Your task to perform on an android device: Toggle the flashlight Image 0: 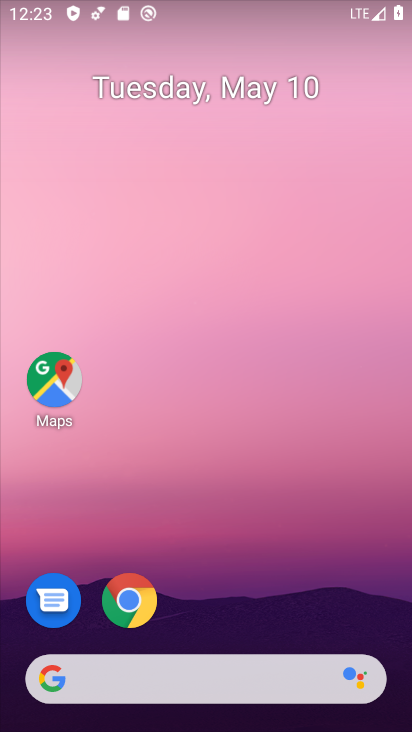
Step 0: drag from (303, 7) to (299, 600)
Your task to perform on an android device: Toggle the flashlight Image 1: 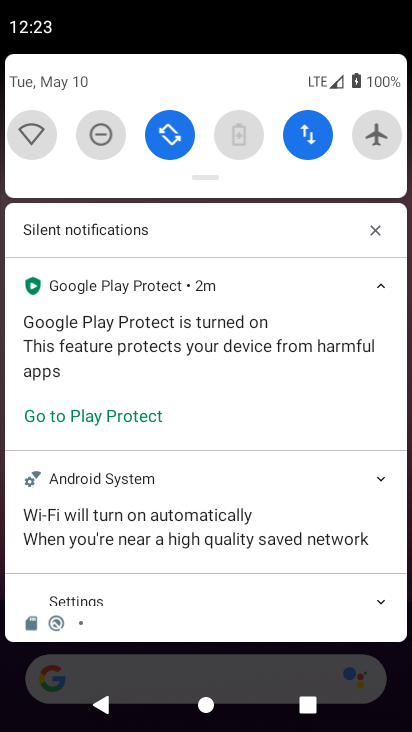
Step 1: task complete